Your task to perform on an android device: Go to settings Image 0: 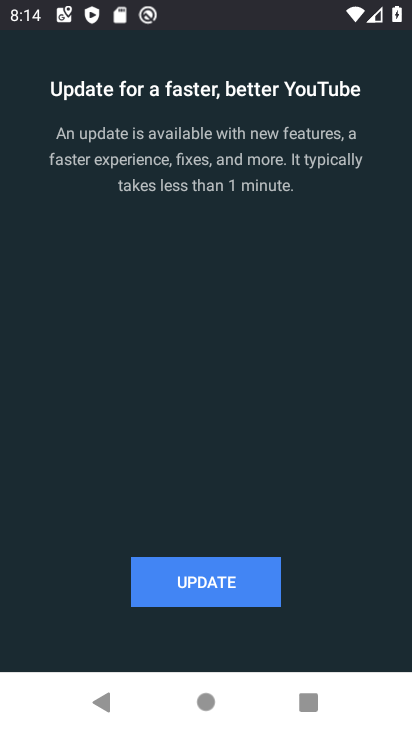
Step 0: click (209, 584)
Your task to perform on an android device: Go to settings Image 1: 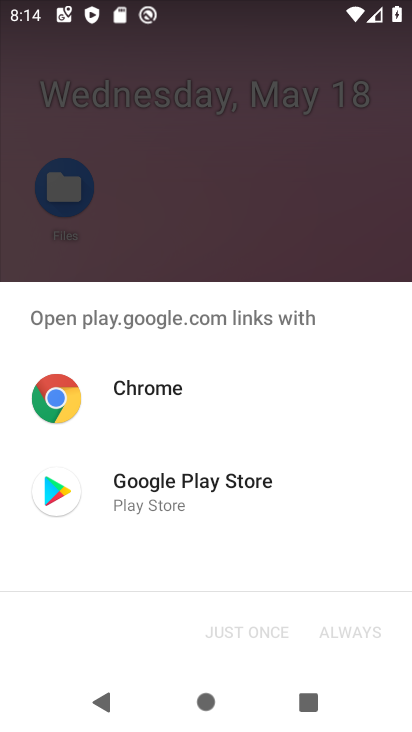
Step 1: press back button
Your task to perform on an android device: Go to settings Image 2: 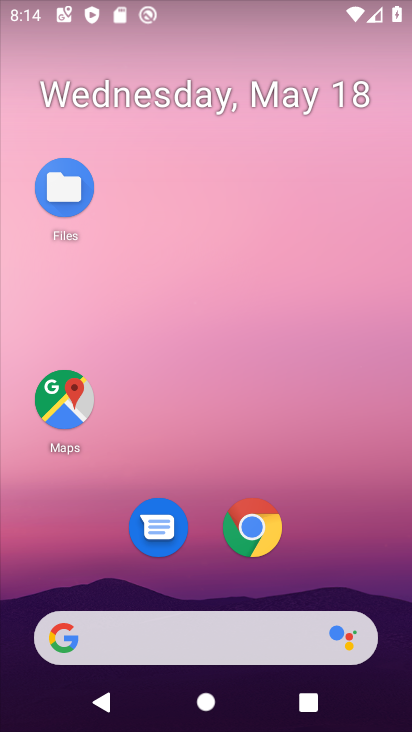
Step 2: drag from (279, 681) to (238, 186)
Your task to perform on an android device: Go to settings Image 3: 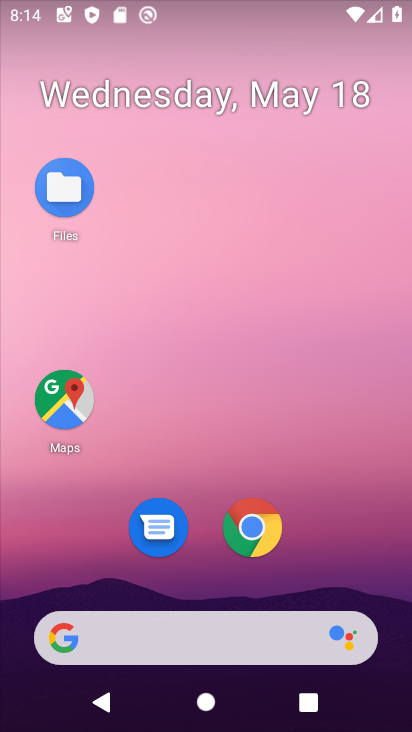
Step 3: drag from (347, 668) to (221, 209)
Your task to perform on an android device: Go to settings Image 4: 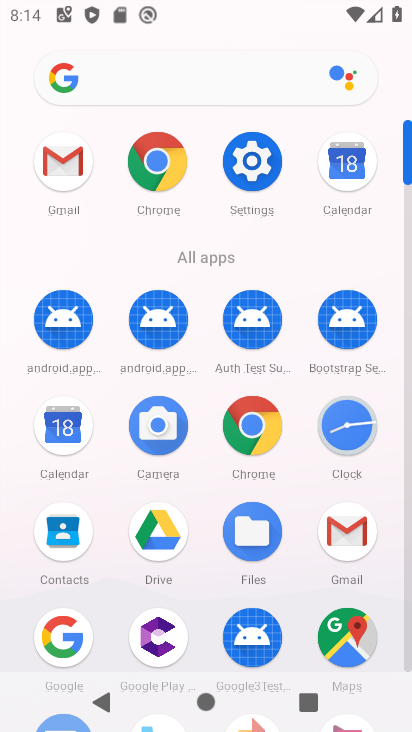
Step 4: click (255, 168)
Your task to perform on an android device: Go to settings Image 5: 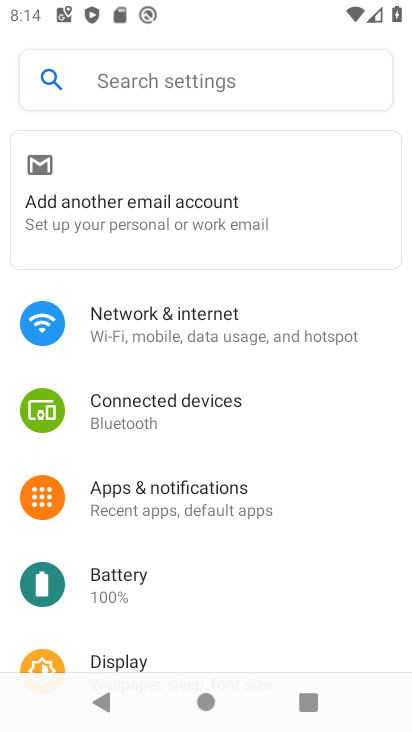
Step 5: task complete